Your task to perform on an android device: Go to sound settings Image 0: 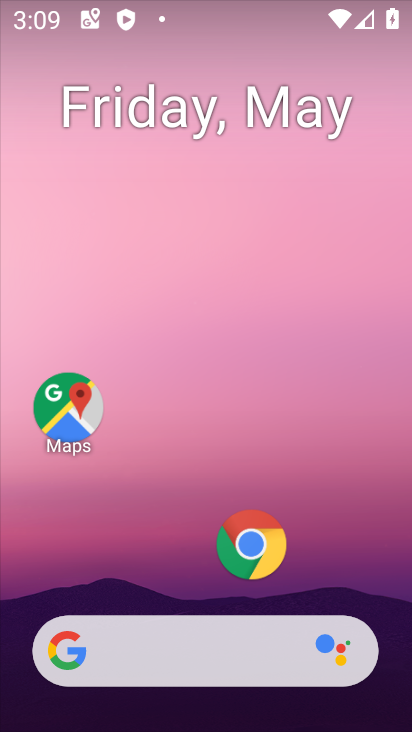
Step 0: drag from (174, 585) to (205, 213)
Your task to perform on an android device: Go to sound settings Image 1: 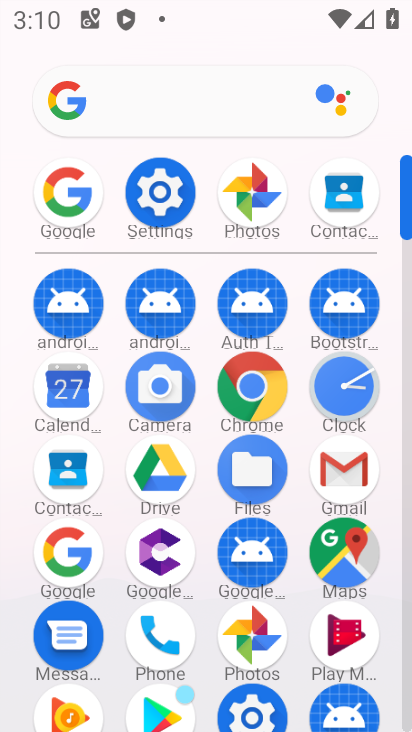
Step 1: click (154, 201)
Your task to perform on an android device: Go to sound settings Image 2: 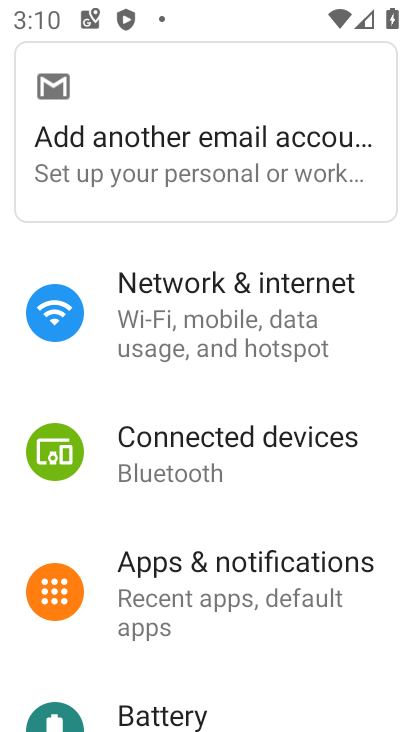
Step 2: drag from (205, 648) to (254, 284)
Your task to perform on an android device: Go to sound settings Image 3: 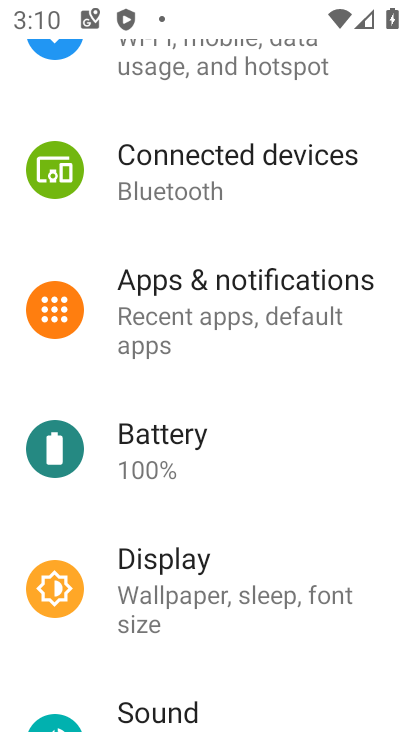
Step 3: click (198, 705)
Your task to perform on an android device: Go to sound settings Image 4: 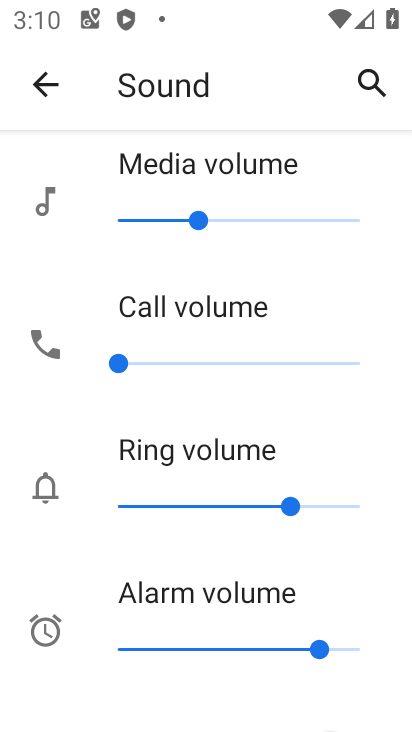
Step 4: task complete